Your task to perform on an android device: Open Chrome and go to settings Image 0: 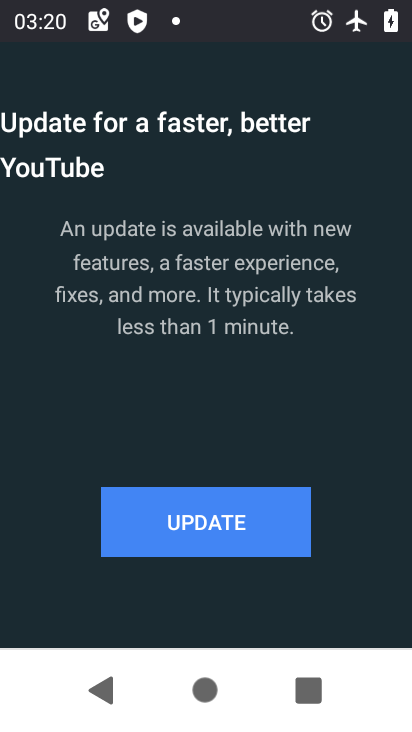
Step 0: press home button
Your task to perform on an android device: Open Chrome and go to settings Image 1: 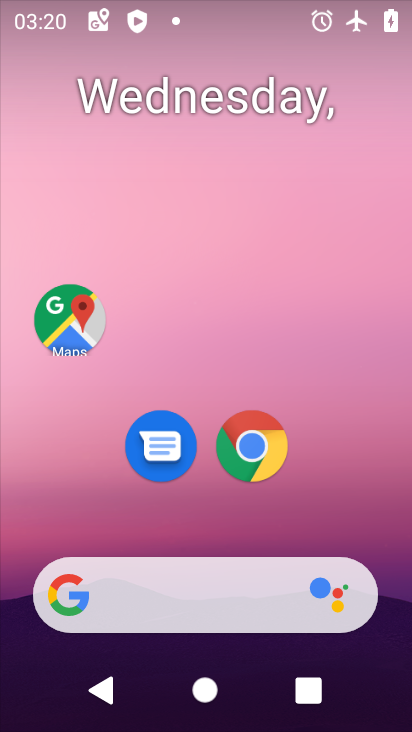
Step 1: click (251, 461)
Your task to perform on an android device: Open Chrome and go to settings Image 2: 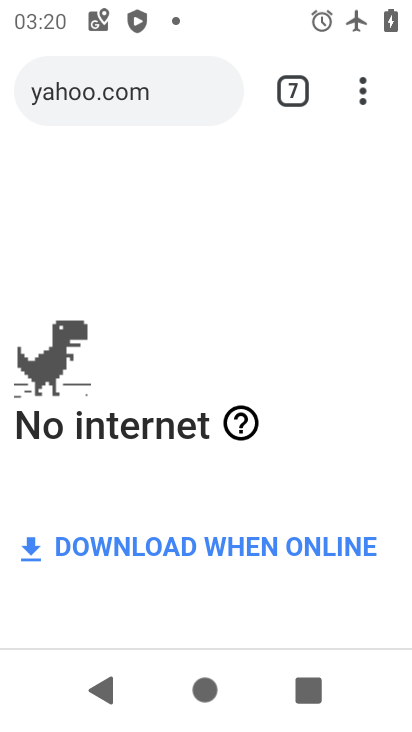
Step 2: click (358, 79)
Your task to perform on an android device: Open Chrome and go to settings Image 3: 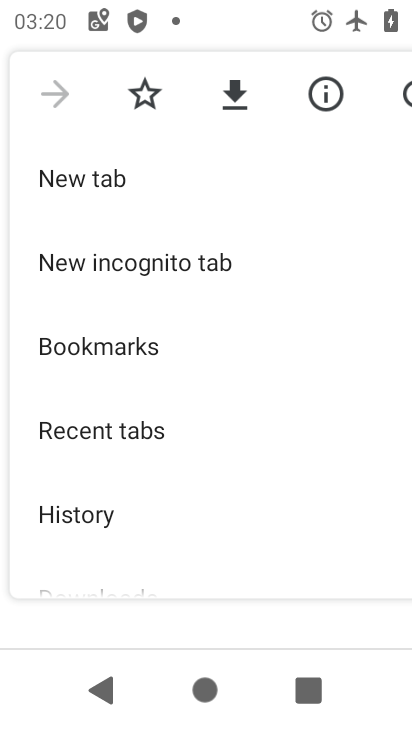
Step 3: drag from (103, 527) to (151, 209)
Your task to perform on an android device: Open Chrome and go to settings Image 4: 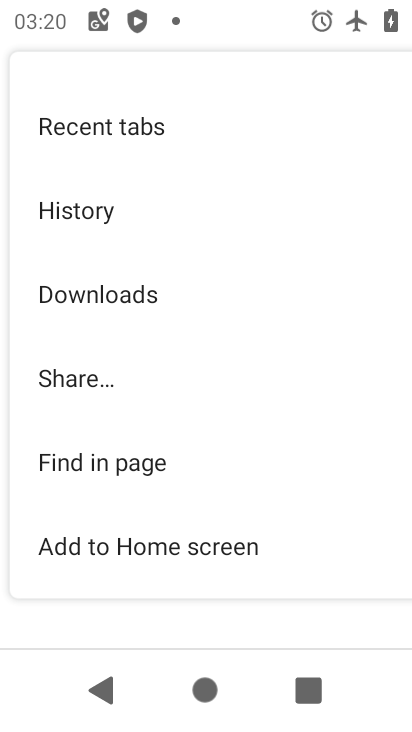
Step 4: drag from (125, 518) to (169, 180)
Your task to perform on an android device: Open Chrome and go to settings Image 5: 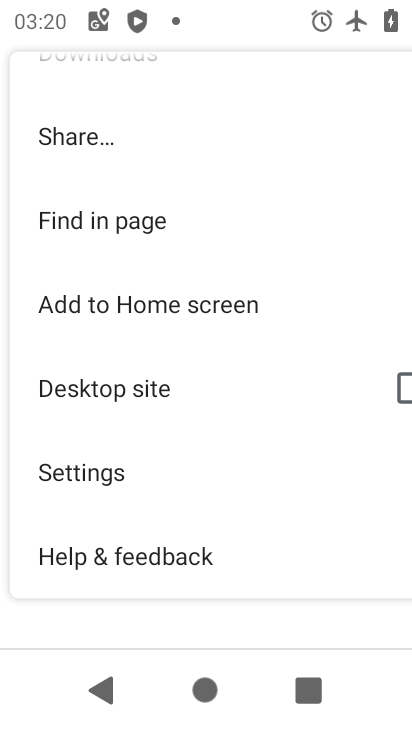
Step 5: click (156, 472)
Your task to perform on an android device: Open Chrome and go to settings Image 6: 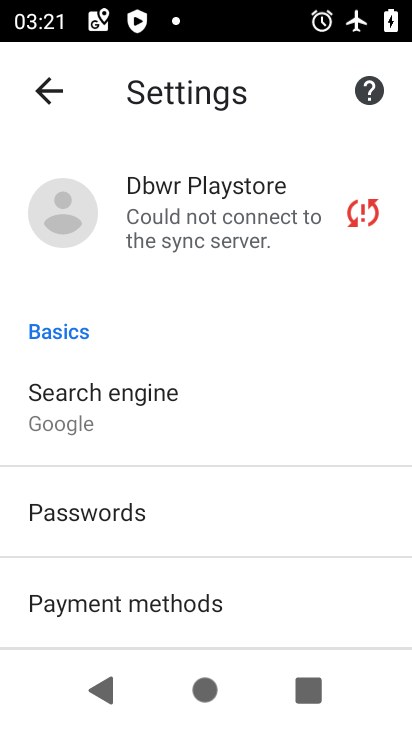
Step 6: task complete